Your task to perform on an android device: turn on translation in the chrome app Image 0: 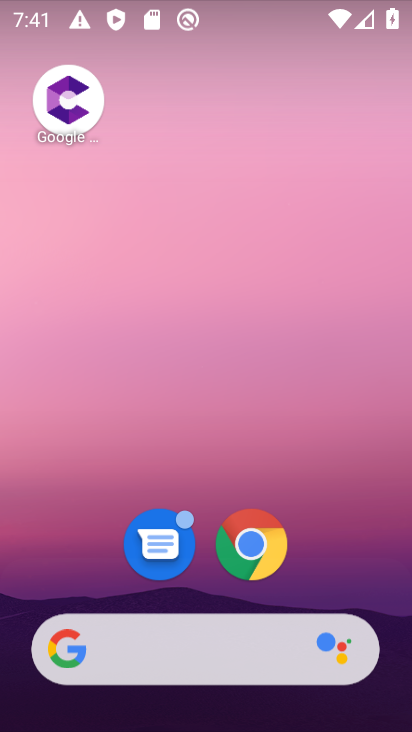
Step 0: drag from (217, 574) to (227, 135)
Your task to perform on an android device: turn on translation in the chrome app Image 1: 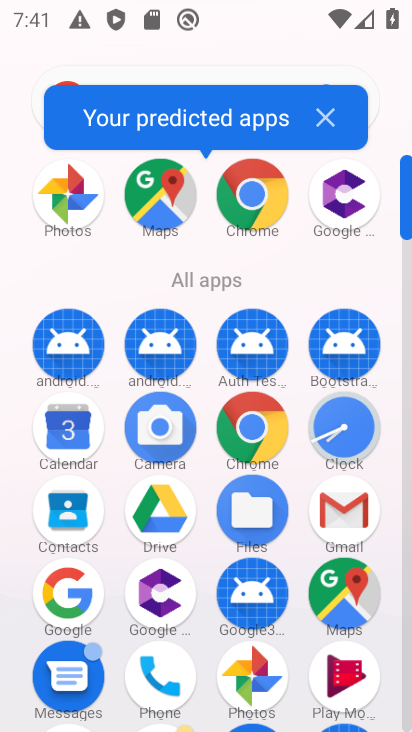
Step 1: click (252, 196)
Your task to perform on an android device: turn on translation in the chrome app Image 2: 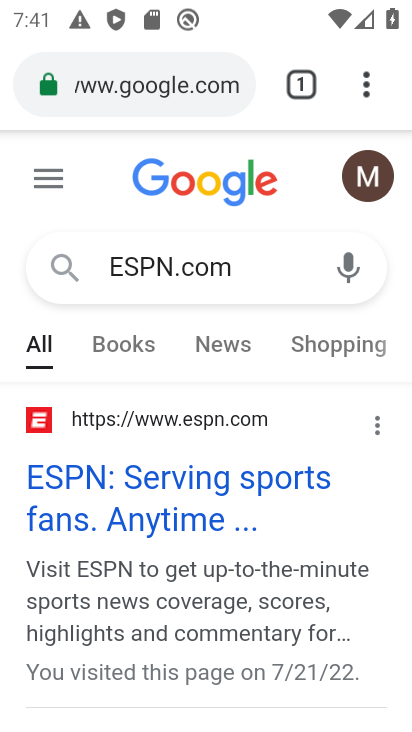
Step 2: click (364, 88)
Your task to perform on an android device: turn on translation in the chrome app Image 3: 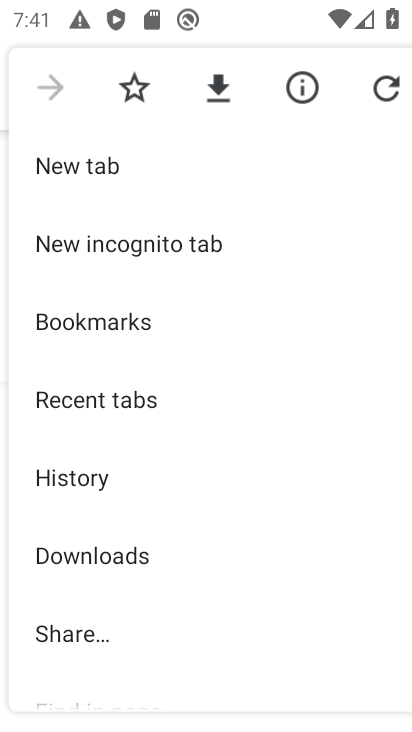
Step 3: drag from (164, 601) to (199, 201)
Your task to perform on an android device: turn on translation in the chrome app Image 4: 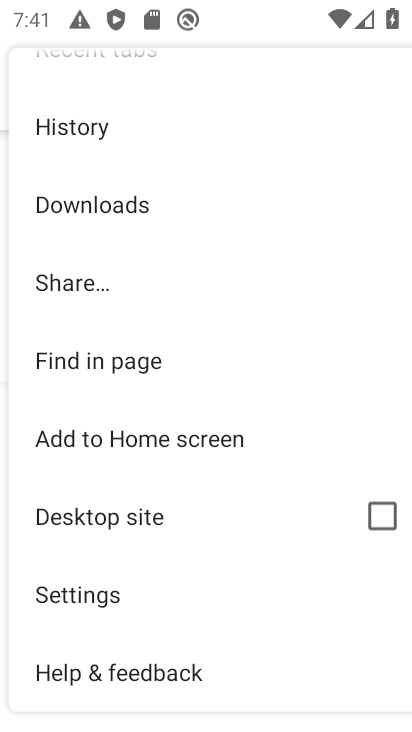
Step 4: click (107, 605)
Your task to perform on an android device: turn on translation in the chrome app Image 5: 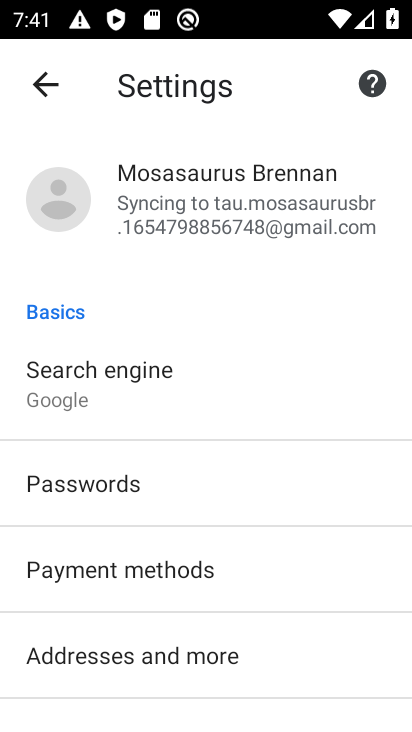
Step 5: drag from (136, 629) to (164, 162)
Your task to perform on an android device: turn on translation in the chrome app Image 6: 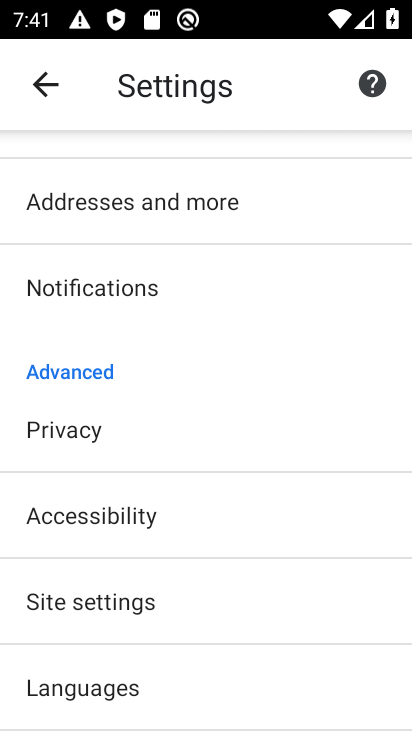
Step 6: click (111, 678)
Your task to perform on an android device: turn on translation in the chrome app Image 7: 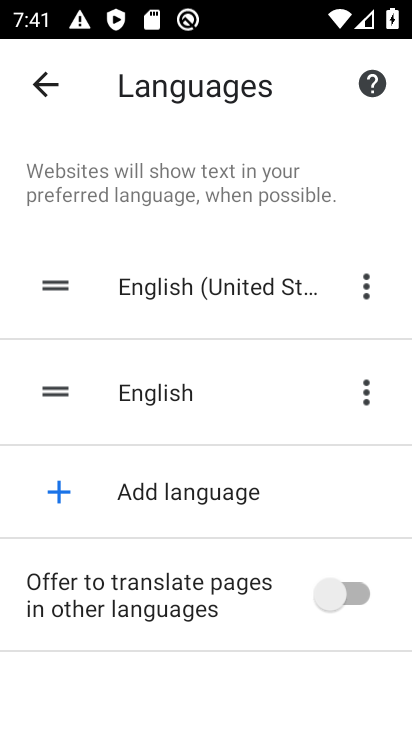
Step 7: click (335, 595)
Your task to perform on an android device: turn on translation in the chrome app Image 8: 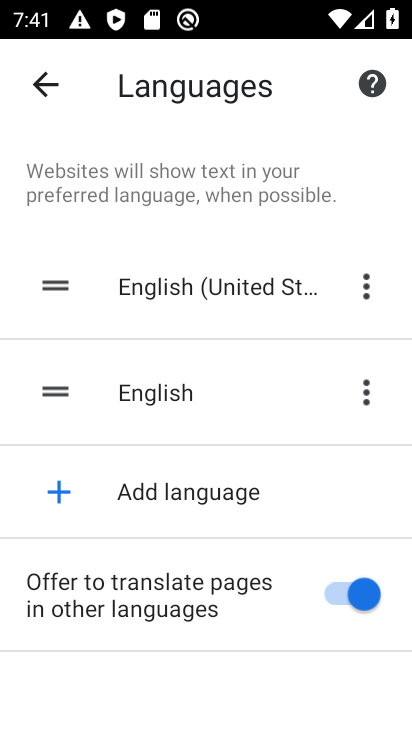
Step 8: task complete